Your task to perform on an android device: check android version Image 0: 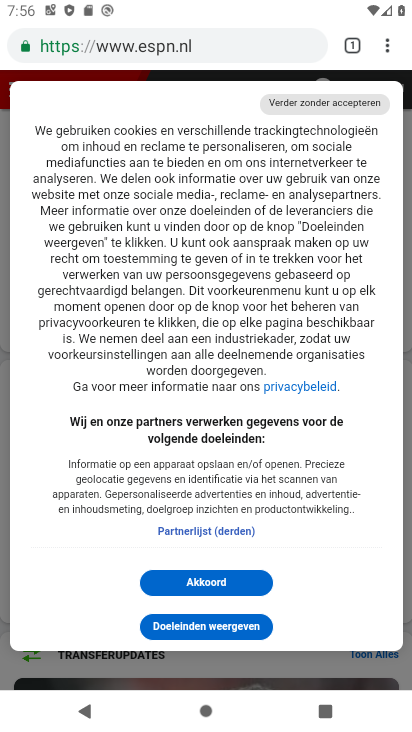
Step 0: press home button
Your task to perform on an android device: check android version Image 1: 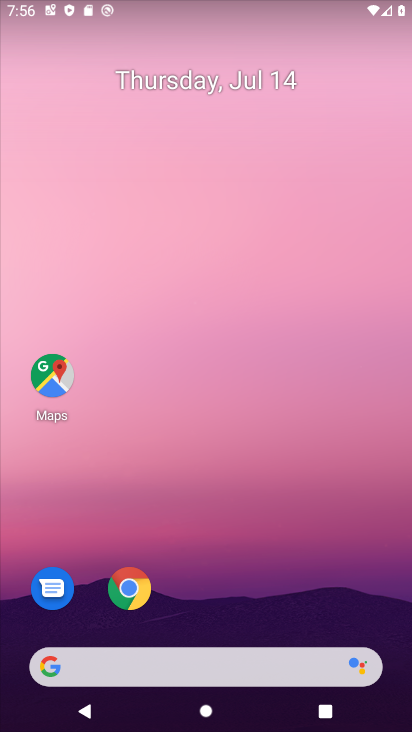
Step 1: drag from (355, 557) to (209, 36)
Your task to perform on an android device: check android version Image 2: 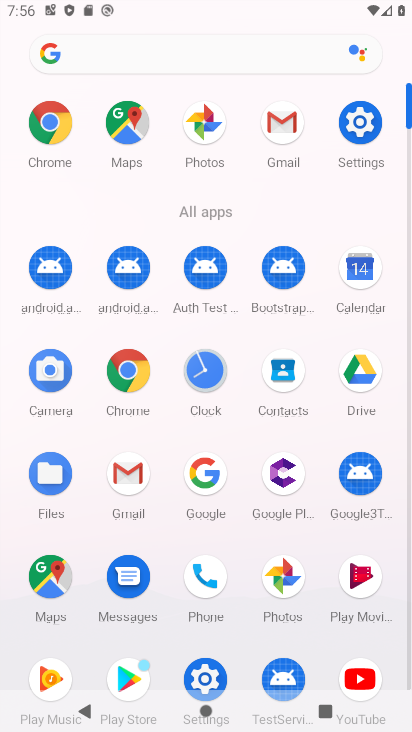
Step 2: click (353, 132)
Your task to perform on an android device: check android version Image 3: 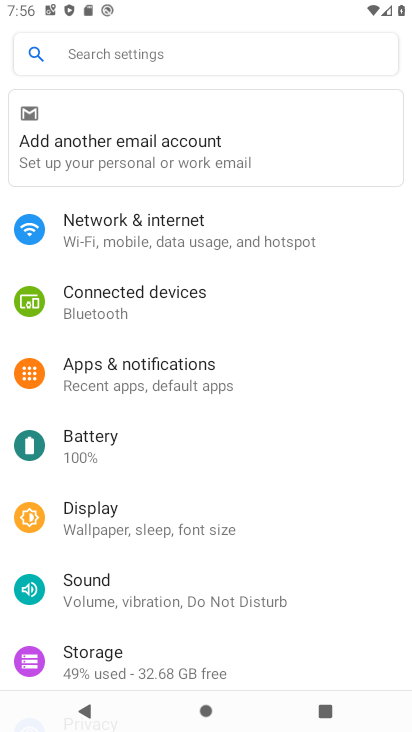
Step 3: drag from (272, 598) to (256, 69)
Your task to perform on an android device: check android version Image 4: 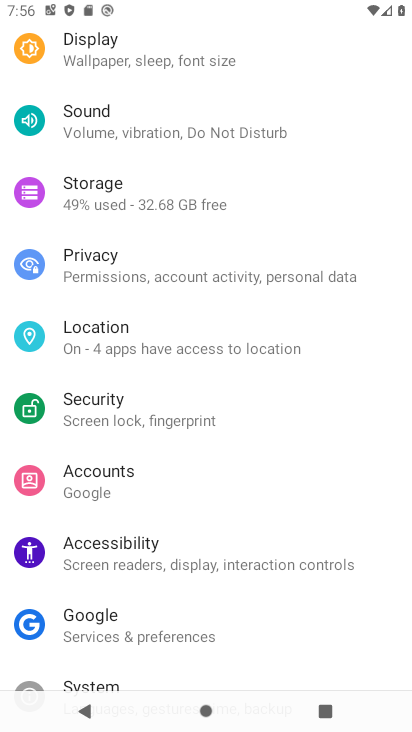
Step 4: drag from (168, 630) to (151, 131)
Your task to perform on an android device: check android version Image 5: 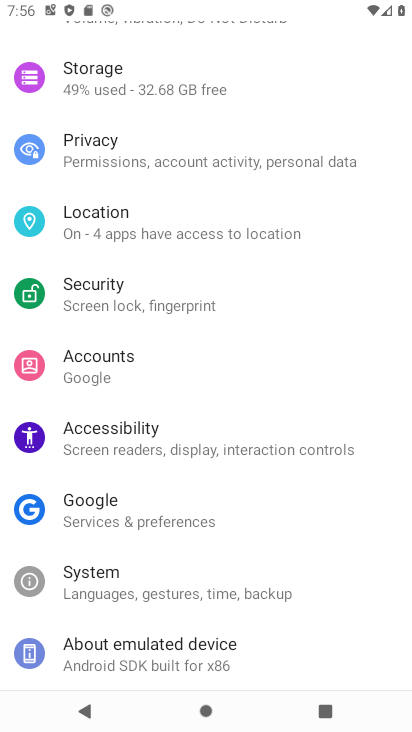
Step 5: click (203, 642)
Your task to perform on an android device: check android version Image 6: 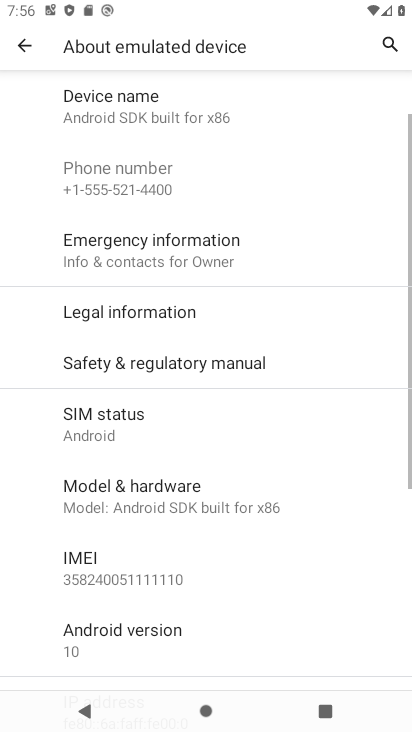
Step 6: click (136, 622)
Your task to perform on an android device: check android version Image 7: 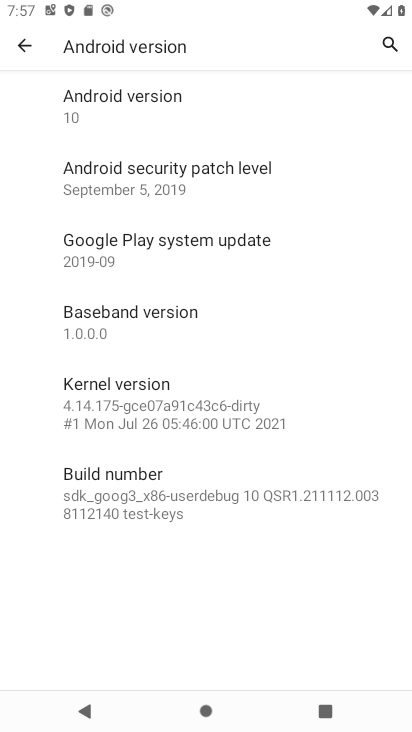
Step 7: click (190, 91)
Your task to perform on an android device: check android version Image 8: 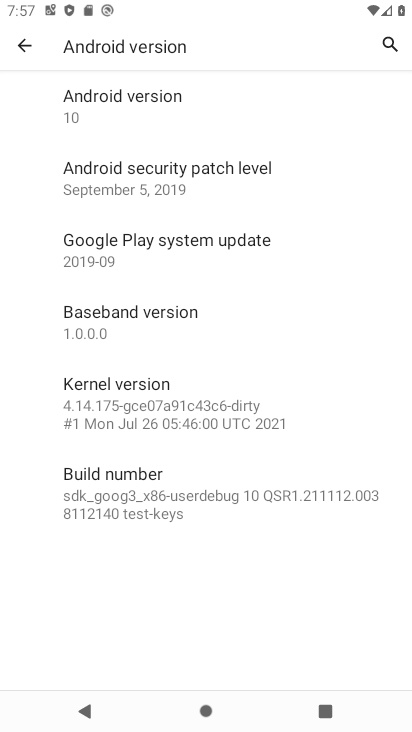
Step 8: task complete